Your task to perform on an android device: see sites visited before in the chrome app Image 0: 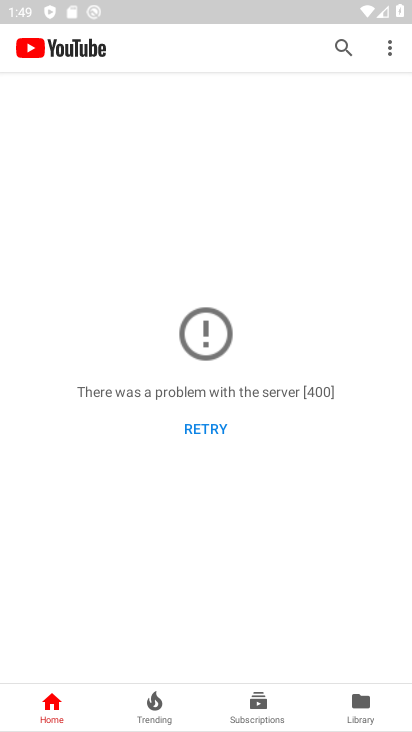
Step 0: press home button
Your task to perform on an android device: see sites visited before in the chrome app Image 1: 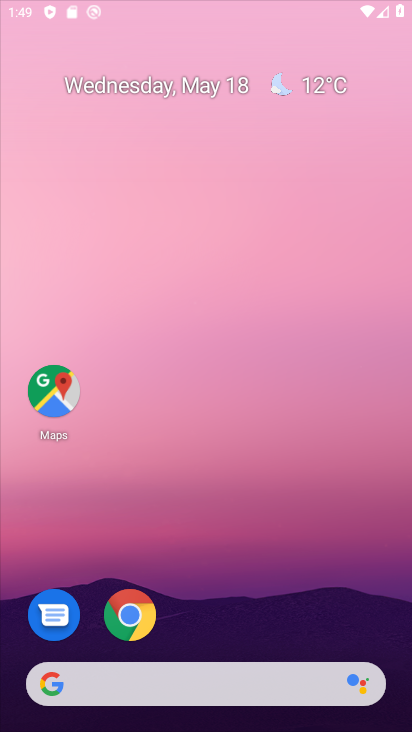
Step 1: drag from (383, 645) to (262, 146)
Your task to perform on an android device: see sites visited before in the chrome app Image 2: 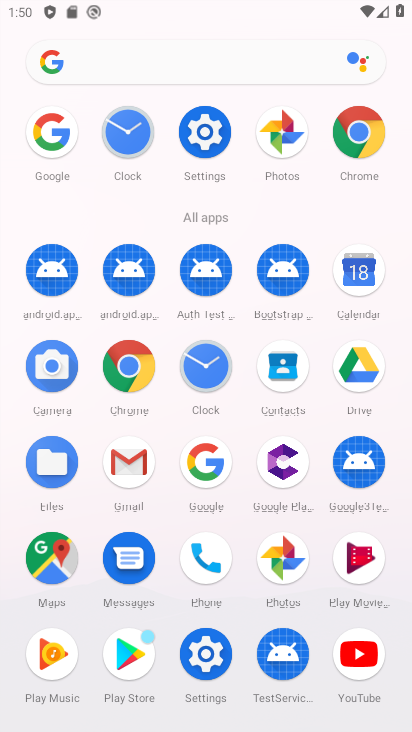
Step 2: click (124, 363)
Your task to perform on an android device: see sites visited before in the chrome app Image 3: 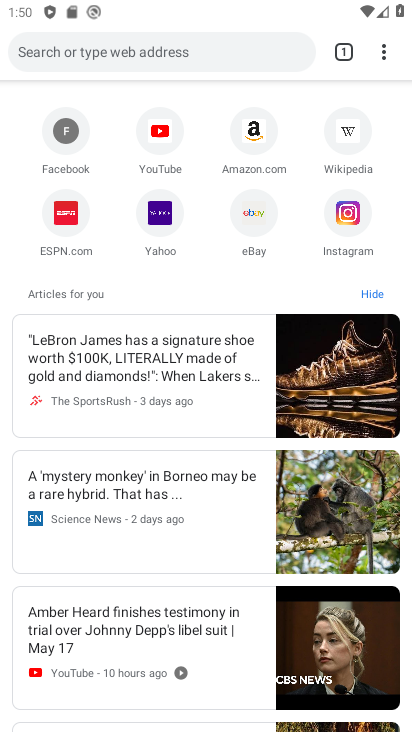
Step 3: click (380, 51)
Your task to perform on an android device: see sites visited before in the chrome app Image 4: 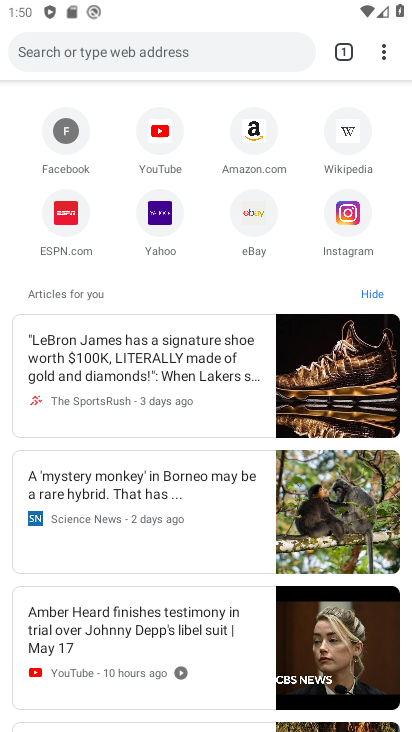
Step 4: click (380, 54)
Your task to perform on an android device: see sites visited before in the chrome app Image 5: 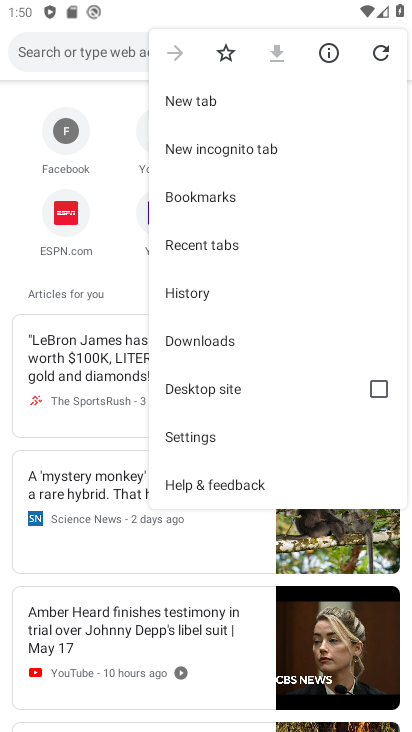
Step 5: click (193, 298)
Your task to perform on an android device: see sites visited before in the chrome app Image 6: 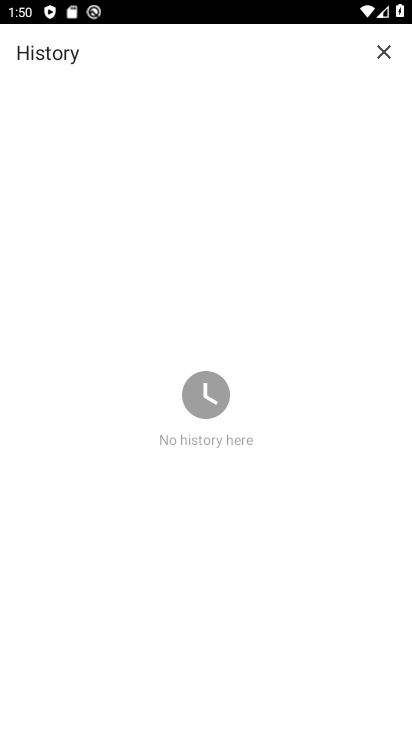
Step 6: task complete